Your task to perform on an android device: Open Chrome and go to settings Image 0: 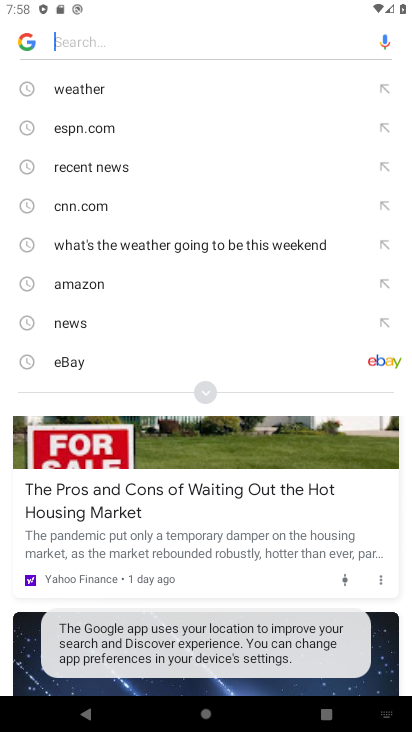
Step 0: press home button
Your task to perform on an android device: Open Chrome and go to settings Image 1: 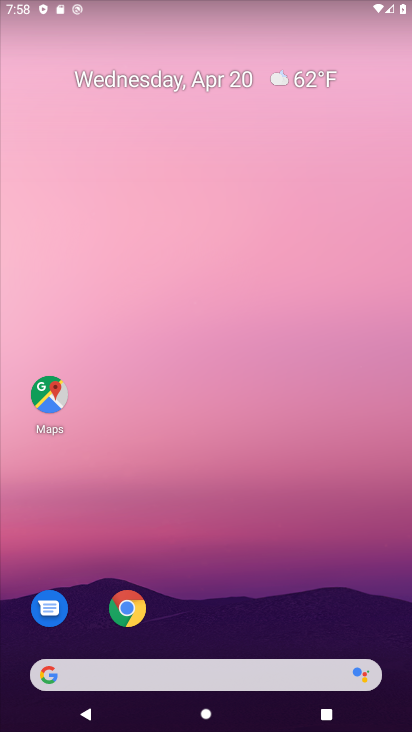
Step 1: click (137, 613)
Your task to perform on an android device: Open Chrome and go to settings Image 2: 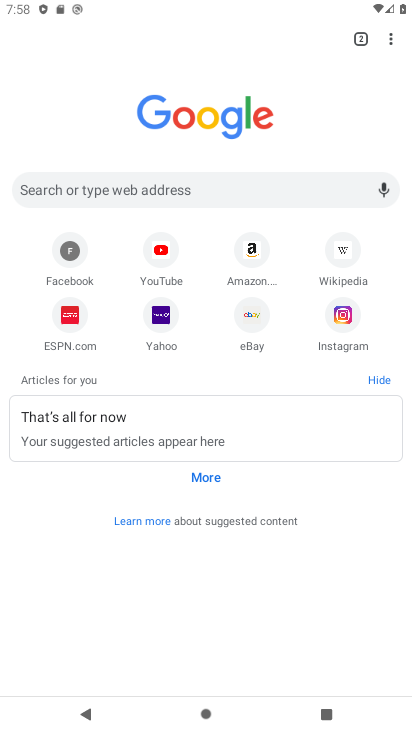
Step 2: task complete